Your task to perform on an android device: toggle airplane mode Image 0: 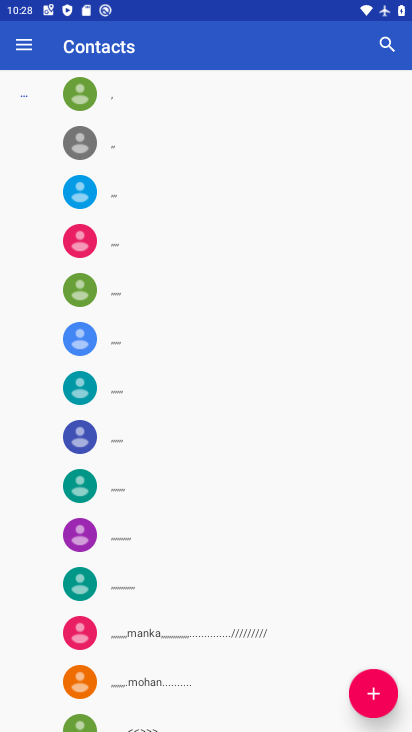
Step 0: press home button
Your task to perform on an android device: toggle airplane mode Image 1: 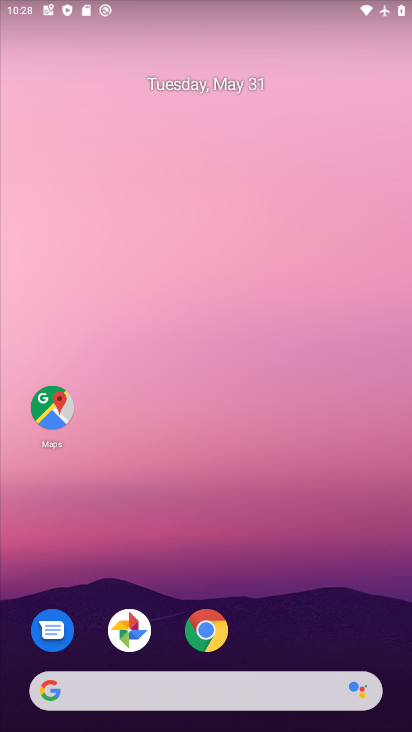
Step 1: drag from (259, 640) to (313, 239)
Your task to perform on an android device: toggle airplane mode Image 2: 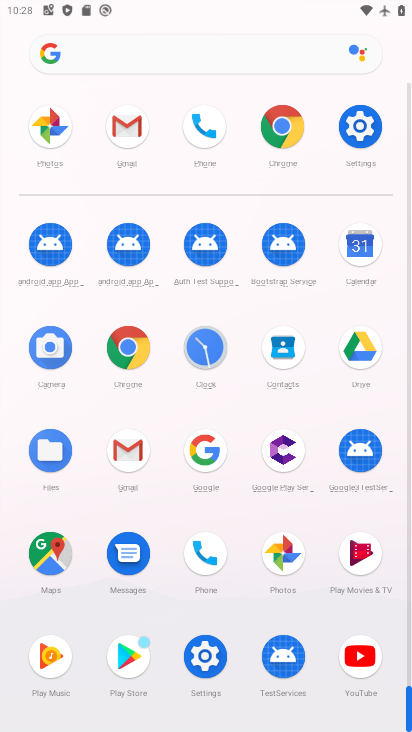
Step 2: click (370, 129)
Your task to perform on an android device: toggle airplane mode Image 3: 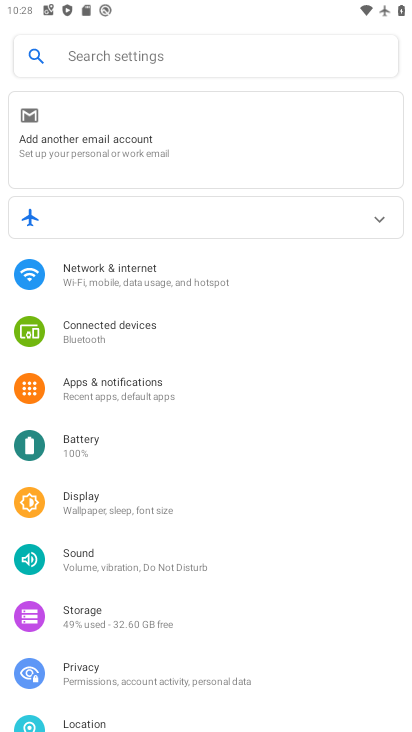
Step 3: click (165, 269)
Your task to perform on an android device: toggle airplane mode Image 4: 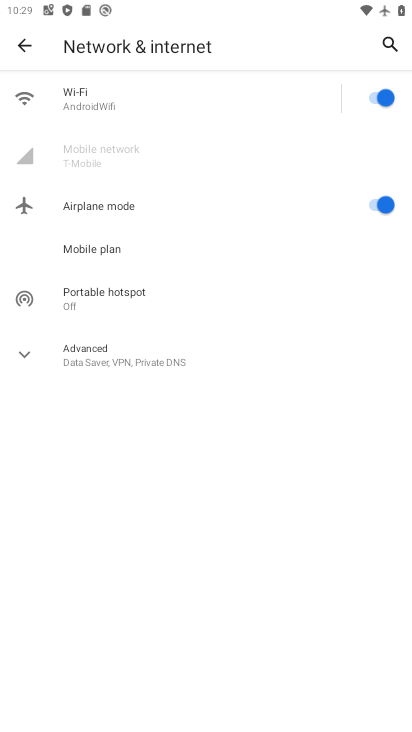
Step 4: click (390, 207)
Your task to perform on an android device: toggle airplane mode Image 5: 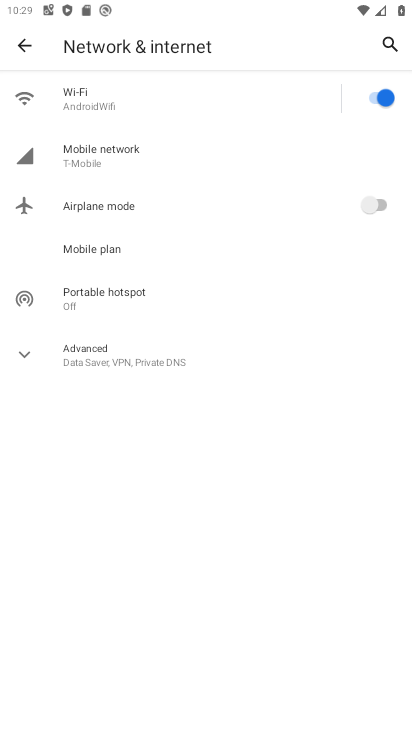
Step 5: task complete